Your task to perform on an android device: Set the phone to "Do not disturb". Image 0: 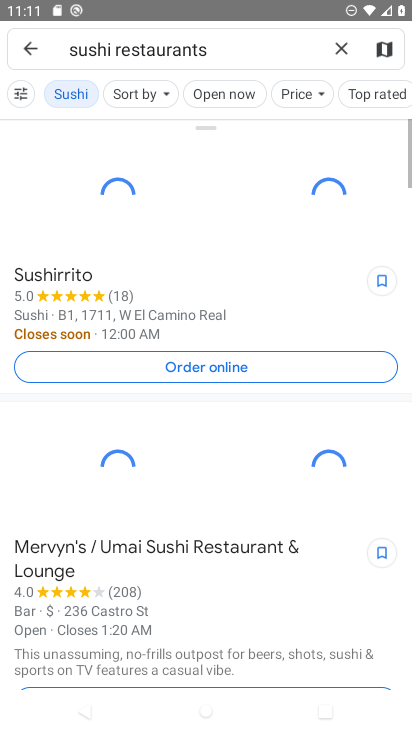
Step 0: press home button
Your task to perform on an android device: Set the phone to "Do not disturb". Image 1: 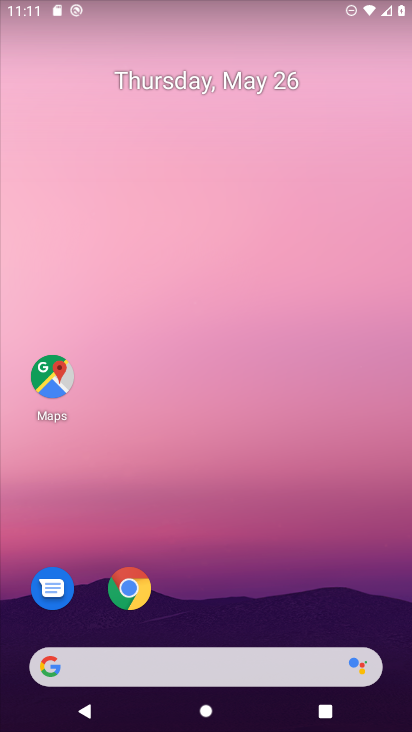
Step 1: drag from (387, 631) to (299, 90)
Your task to perform on an android device: Set the phone to "Do not disturb". Image 2: 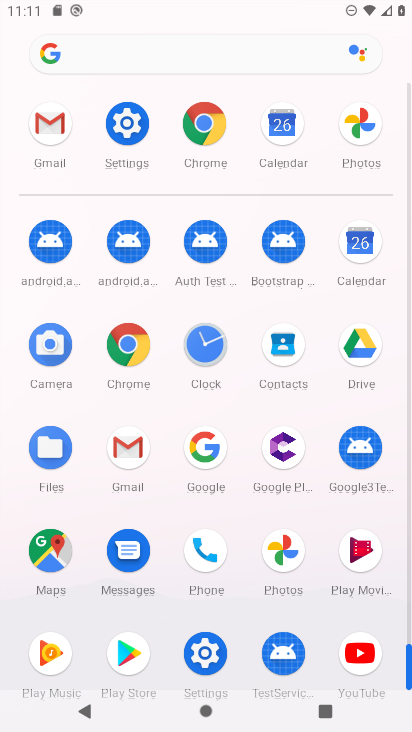
Step 2: click (203, 653)
Your task to perform on an android device: Set the phone to "Do not disturb". Image 3: 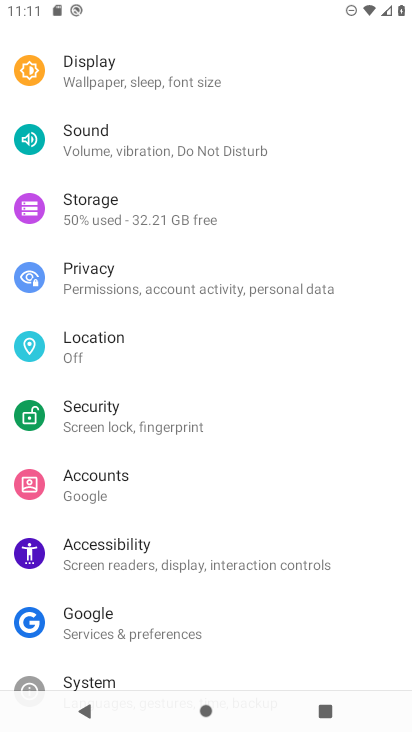
Step 3: click (116, 126)
Your task to perform on an android device: Set the phone to "Do not disturb". Image 4: 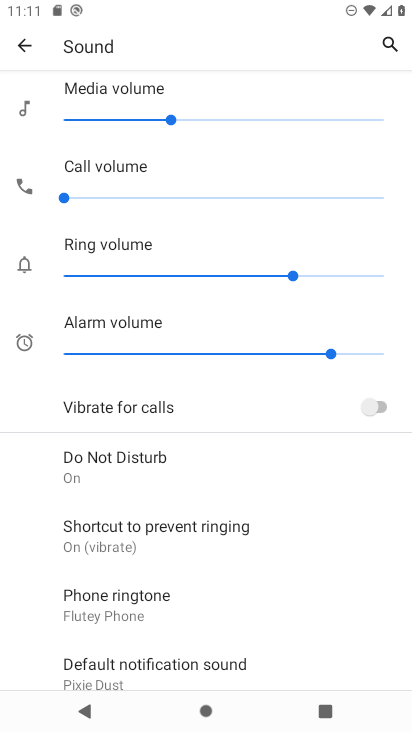
Step 4: click (114, 471)
Your task to perform on an android device: Set the phone to "Do not disturb". Image 5: 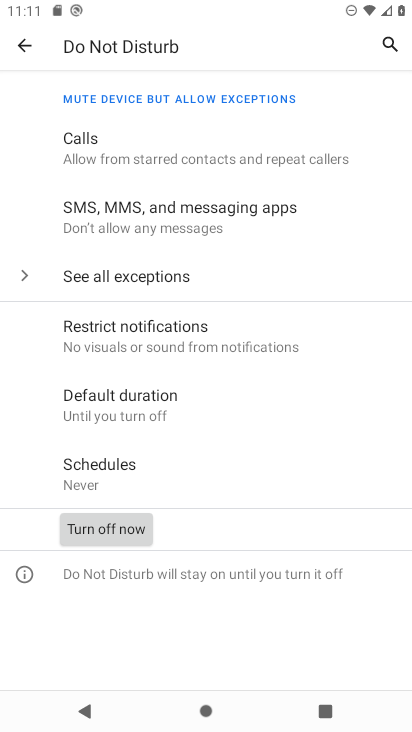
Step 5: task complete